Your task to perform on an android device: turn on wifi Image 0: 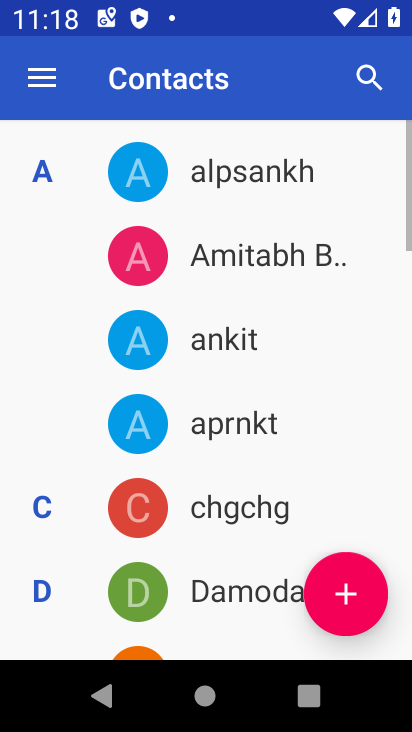
Step 0: press home button
Your task to perform on an android device: turn on wifi Image 1: 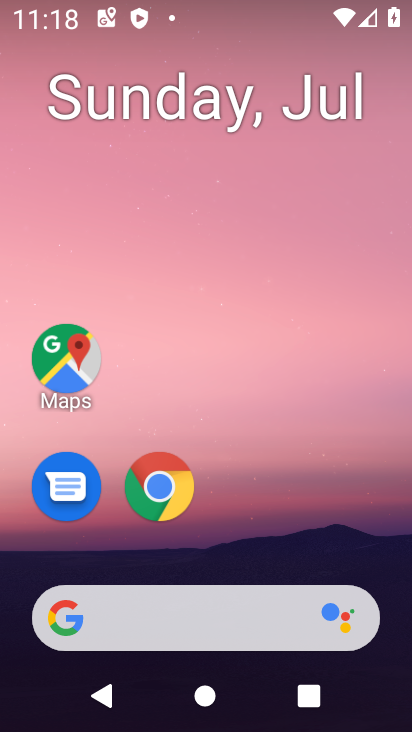
Step 1: drag from (386, 506) to (383, 47)
Your task to perform on an android device: turn on wifi Image 2: 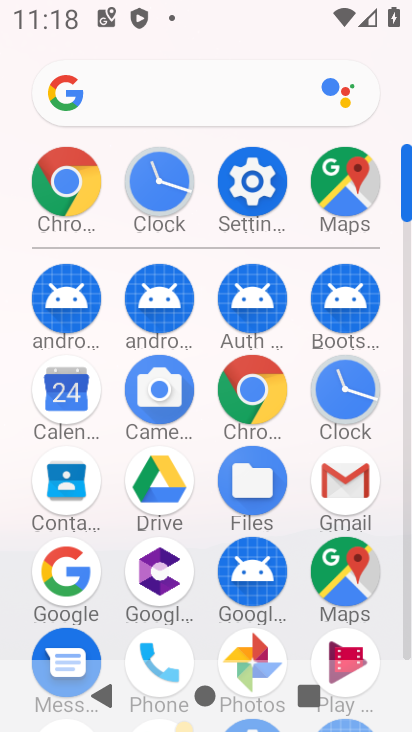
Step 2: click (262, 189)
Your task to perform on an android device: turn on wifi Image 3: 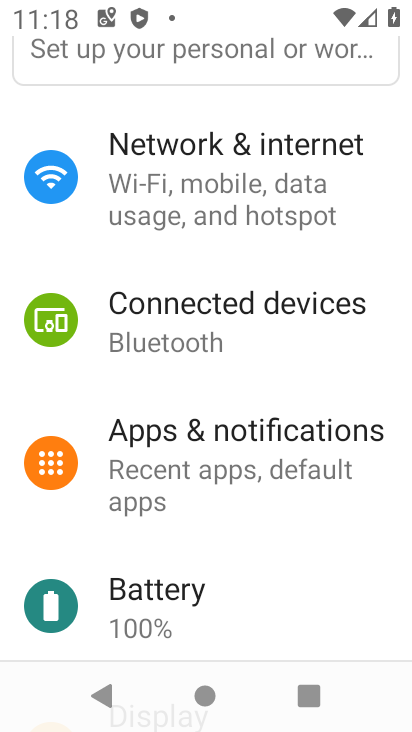
Step 3: drag from (371, 261) to (372, 312)
Your task to perform on an android device: turn on wifi Image 4: 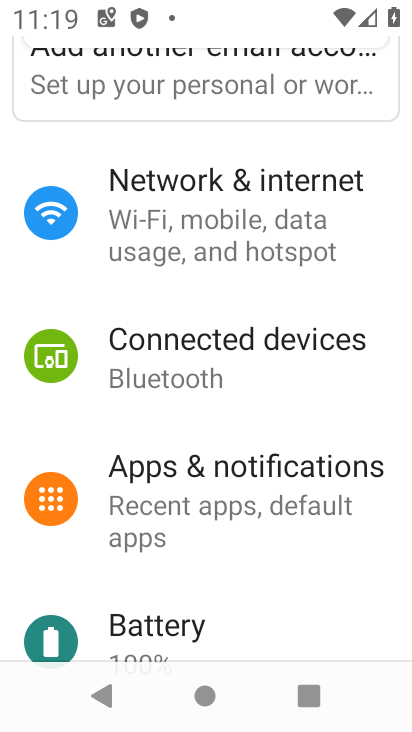
Step 4: drag from (377, 405) to (387, 344)
Your task to perform on an android device: turn on wifi Image 5: 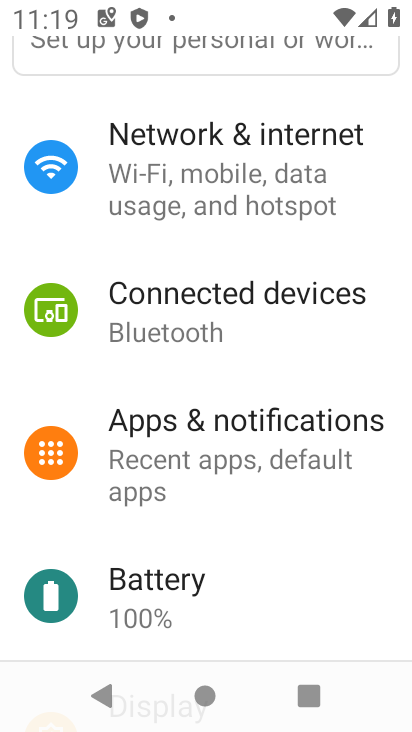
Step 5: click (304, 181)
Your task to perform on an android device: turn on wifi Image 6: 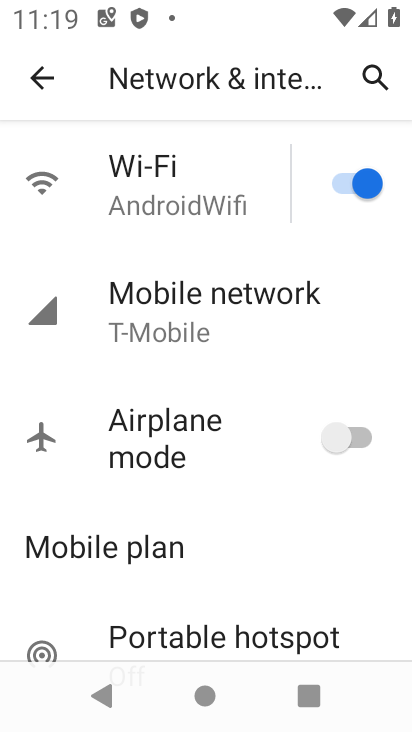
Step 6: task complete